Your task to perform on an android device: Go to network settings Image 0: 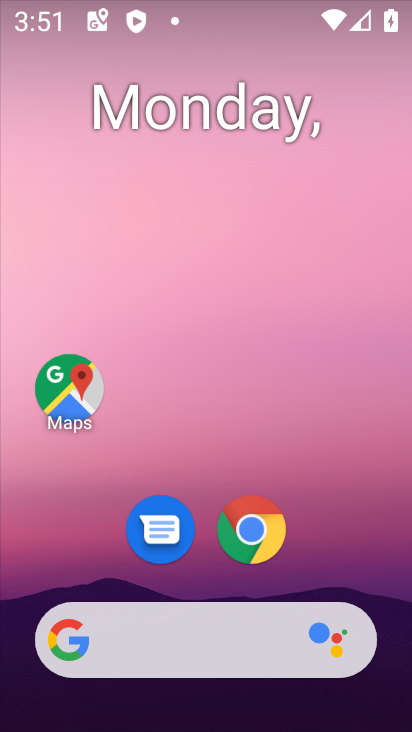
Step 0: drag from (220, 565) to (319, 140)
Your task to perform on an android device: Go to network settings Image 1: 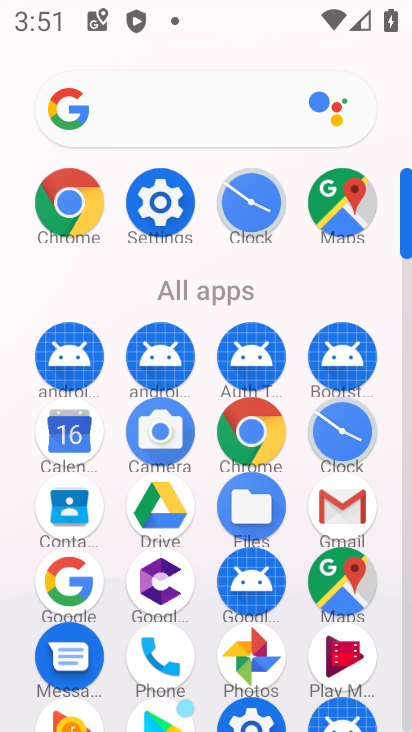
Step 1: click (170, 228)
Your task to perform on an android device: Go to network settings Image 2: 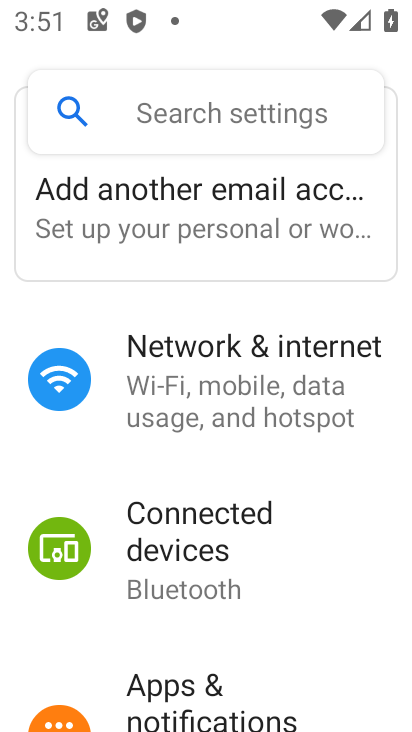
Step 2: click (231, 411)
Your task to perform on an android device: Go to network settings Image 3: 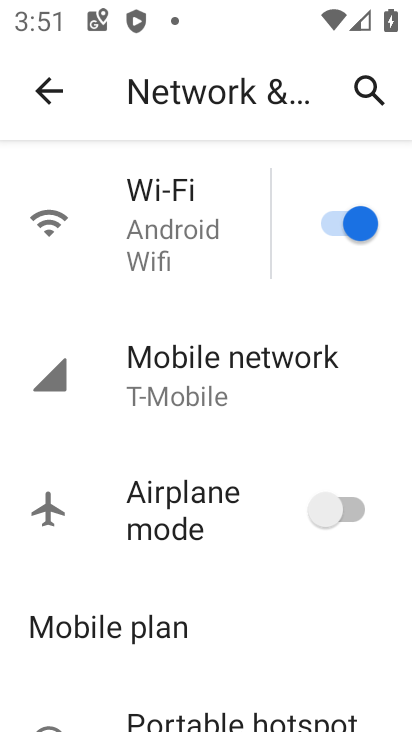
Step 3: task complete